Your task to perform on an android device: open app "Duolingo: language lessons" Image 0: 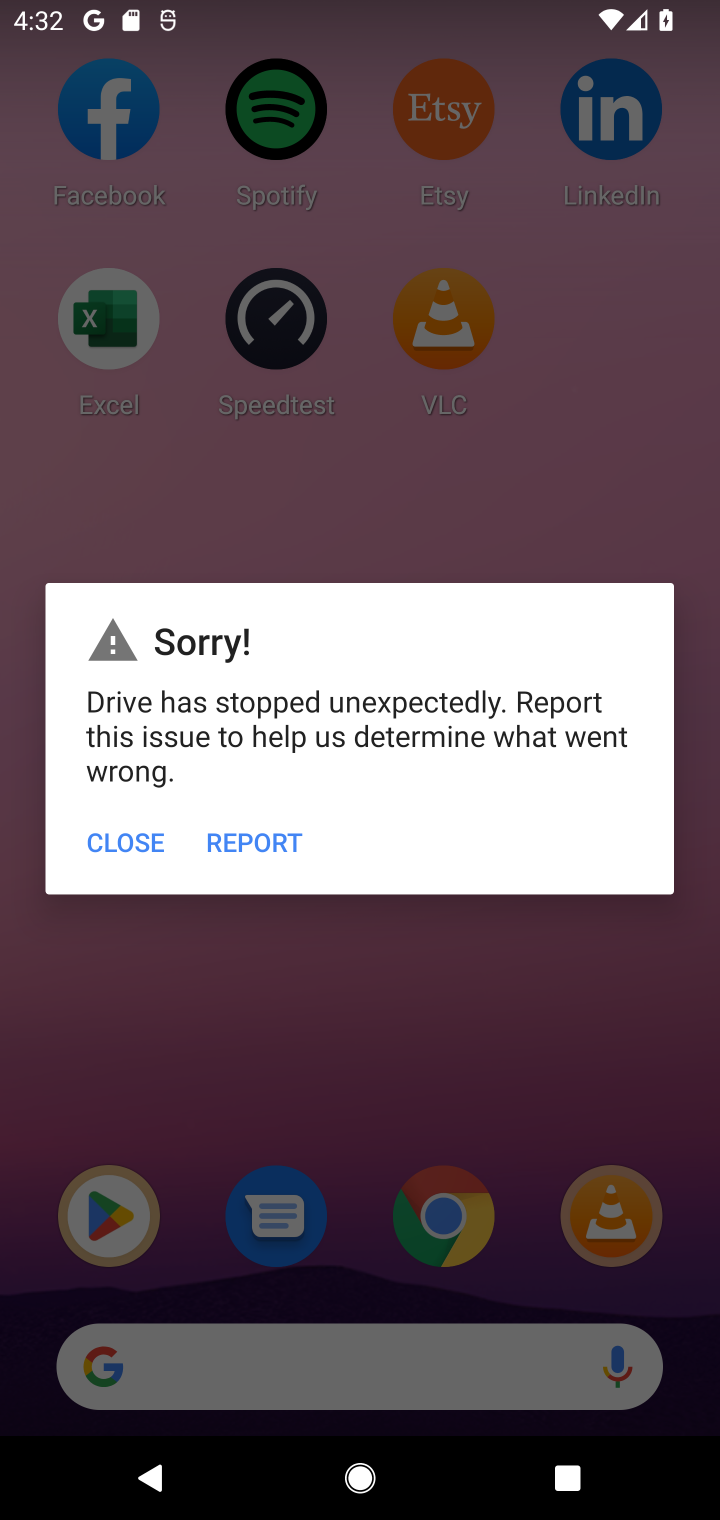
Step 0: click (125, 849)
Your task to perform on an android device: open app "Duolingo: language lessons" Image 1: 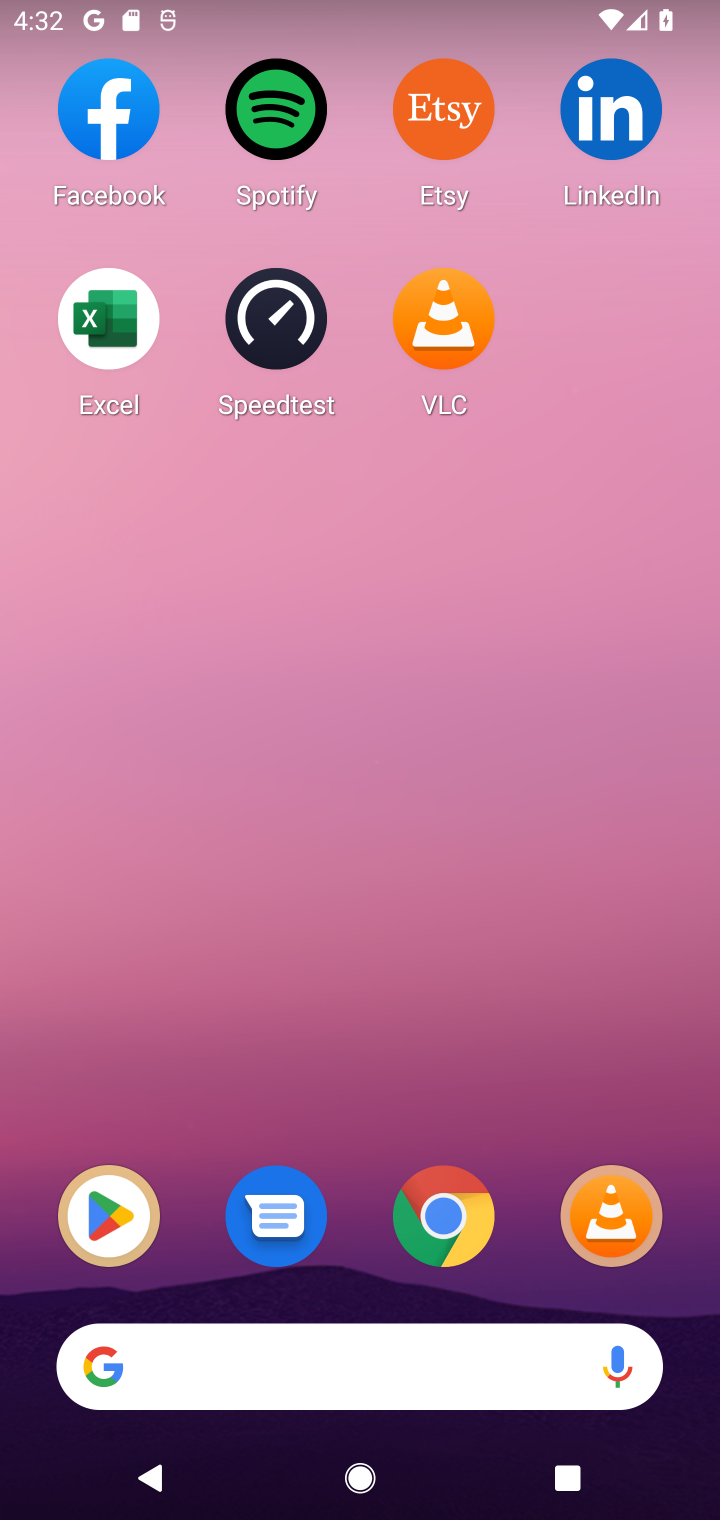
Step 1: click (136, 1203)
Your task to perform on an android device: open app "Duolingo: language lessons" Image 2: 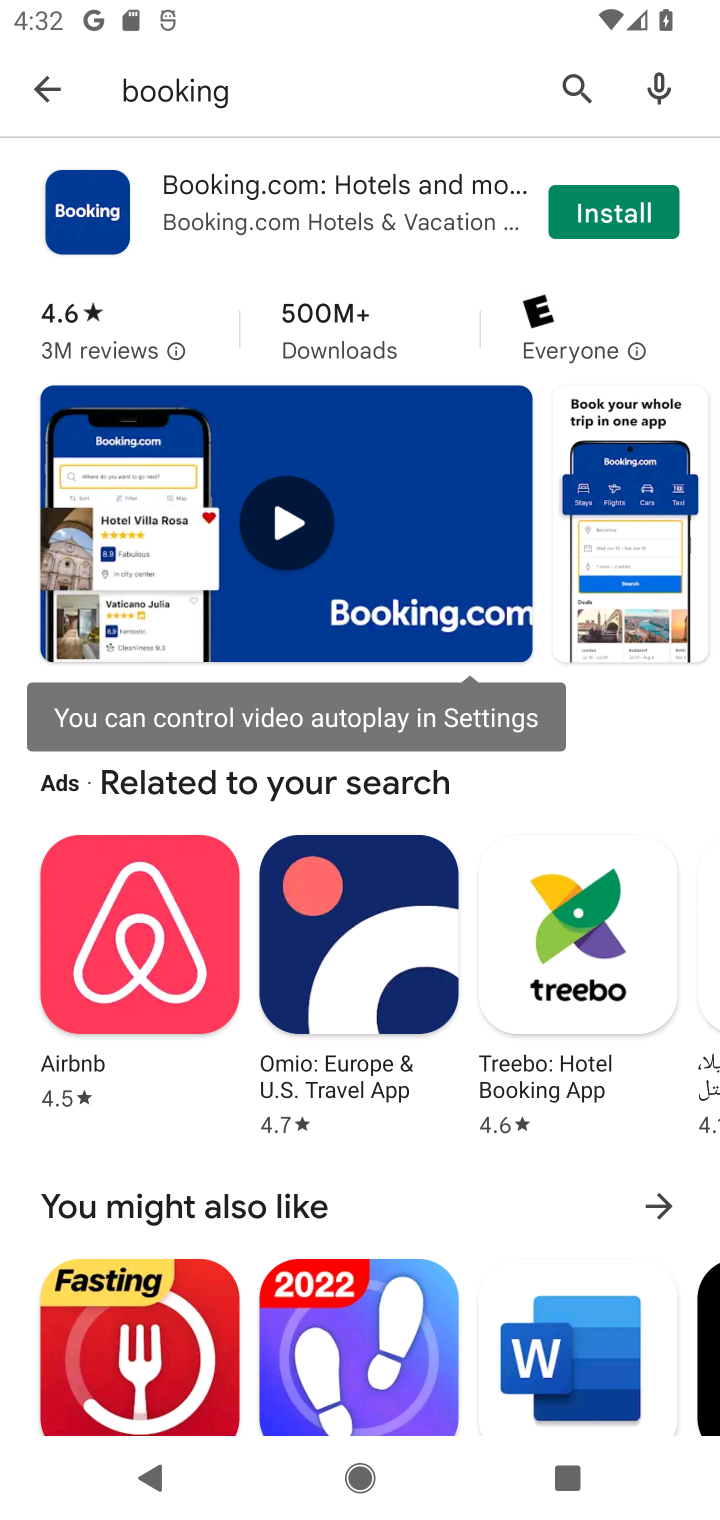
Step 2: click (568, 75)
Your task to perform on an android device: open app "Duolingo: language lessons" Image 3: 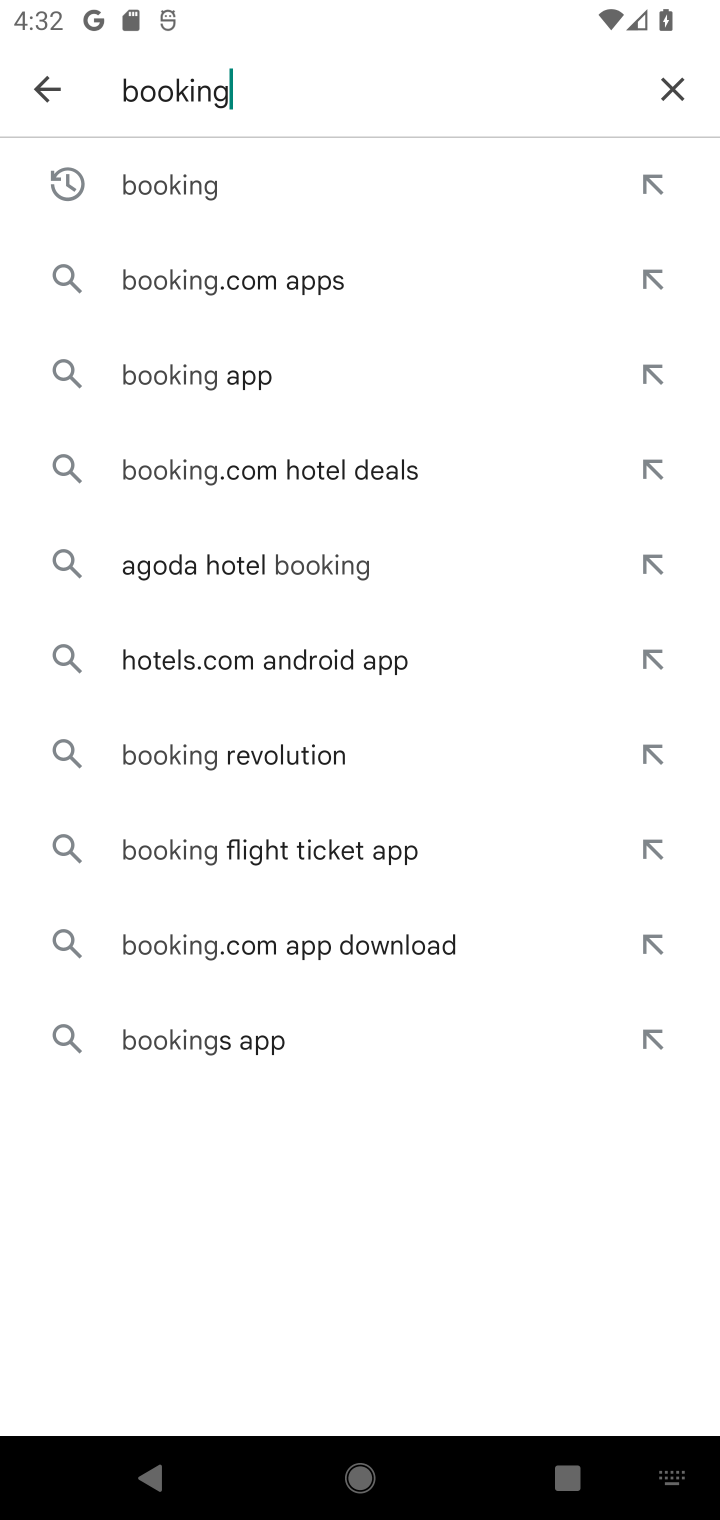
Step 3: click (652, 94)
Your task to perform on an android device: open app "Duolingo: language lessons" Image 4: 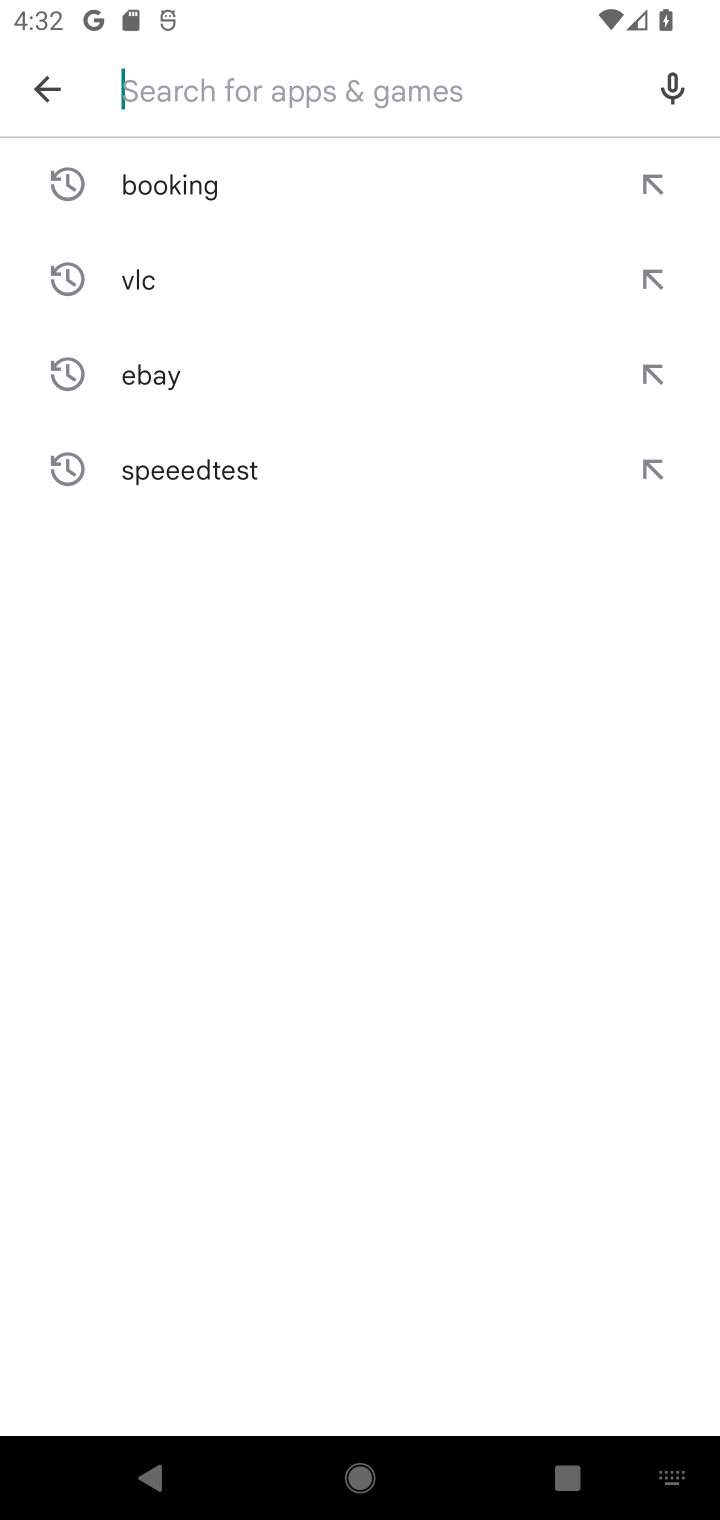
Step 4: type "duolingo"
Your task to perform on an android device: open app "Duolingo: language lessons" Image 5: 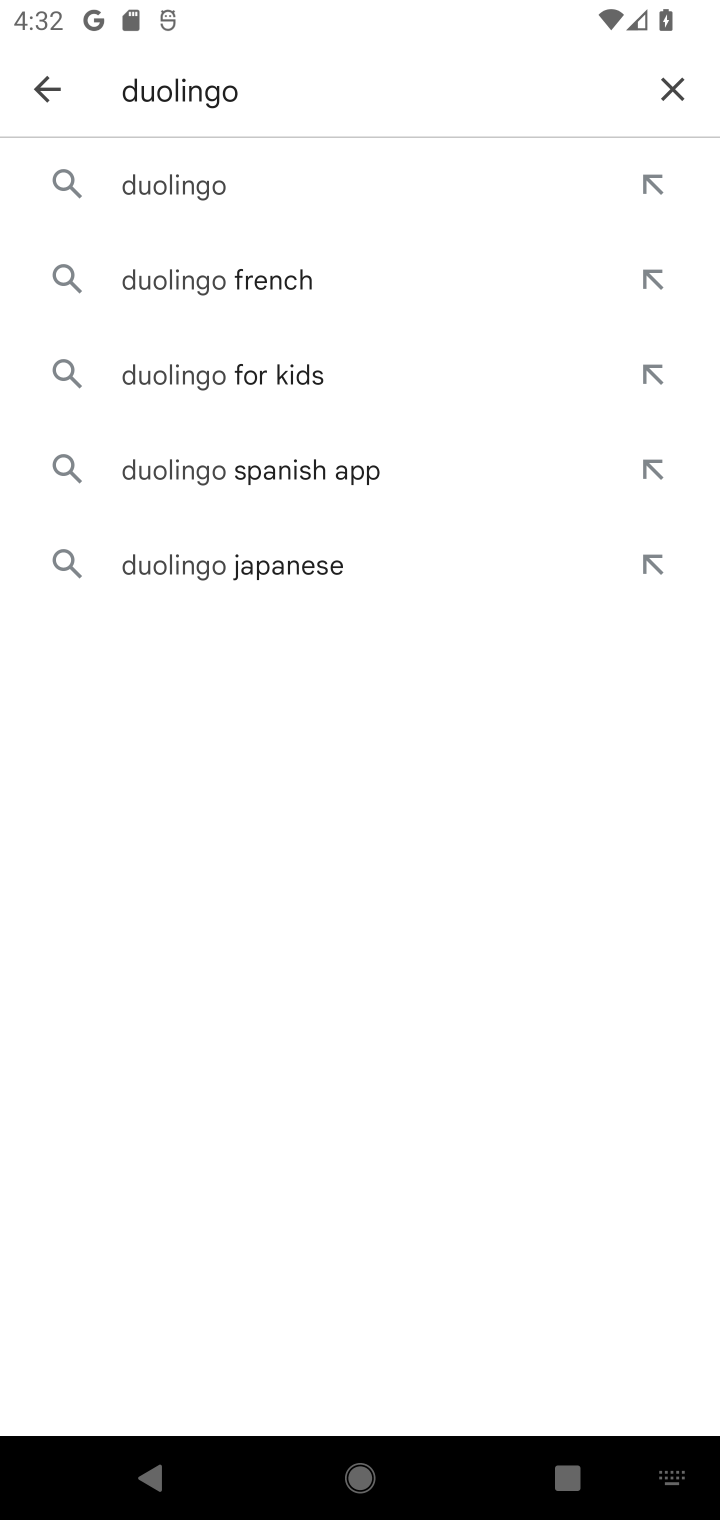
Step 5: click (305, 197)
Your task to perform on an android device: open app "Duolingo: language lessons" Image 6: 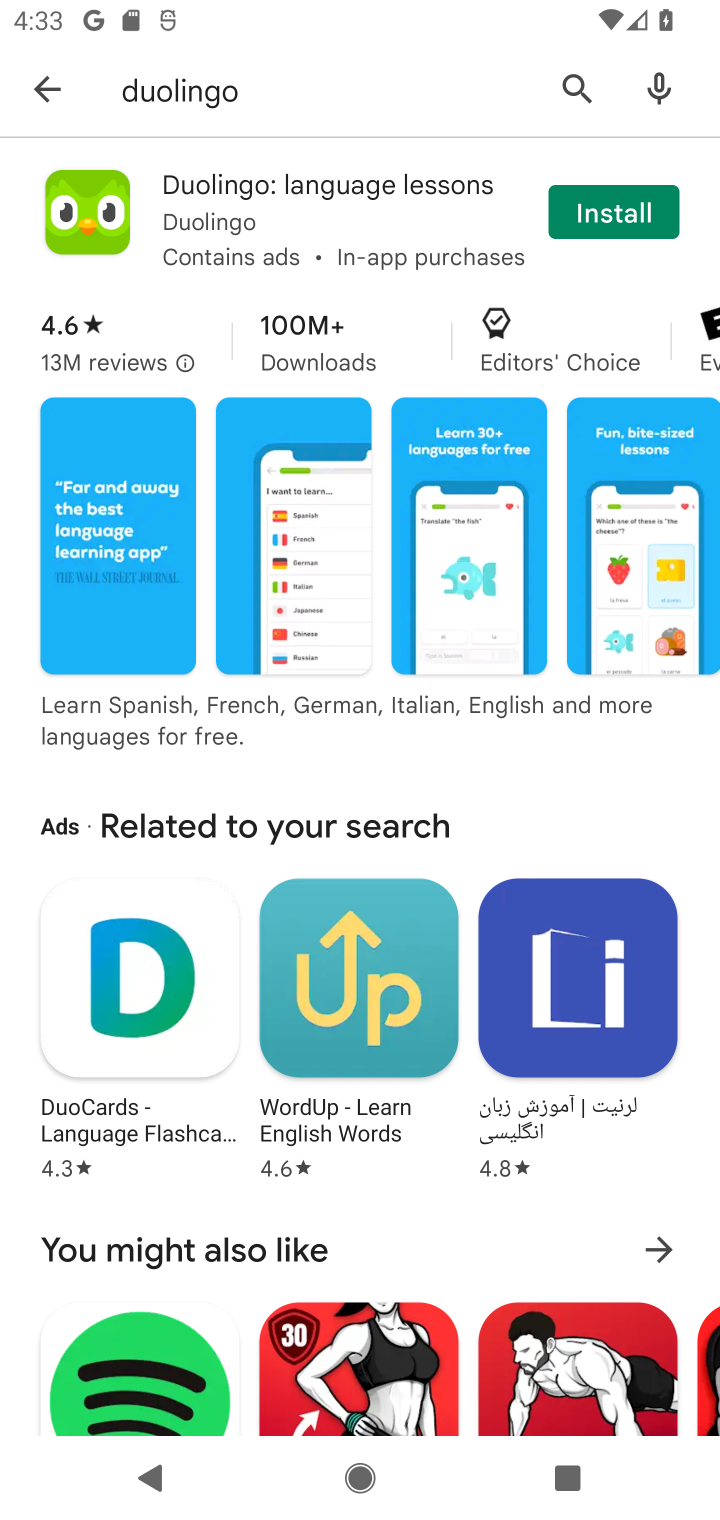
Step 6: click (616, 204)
Your task to perform on an android device: open app "Duolingo: language lessons" Image 7: 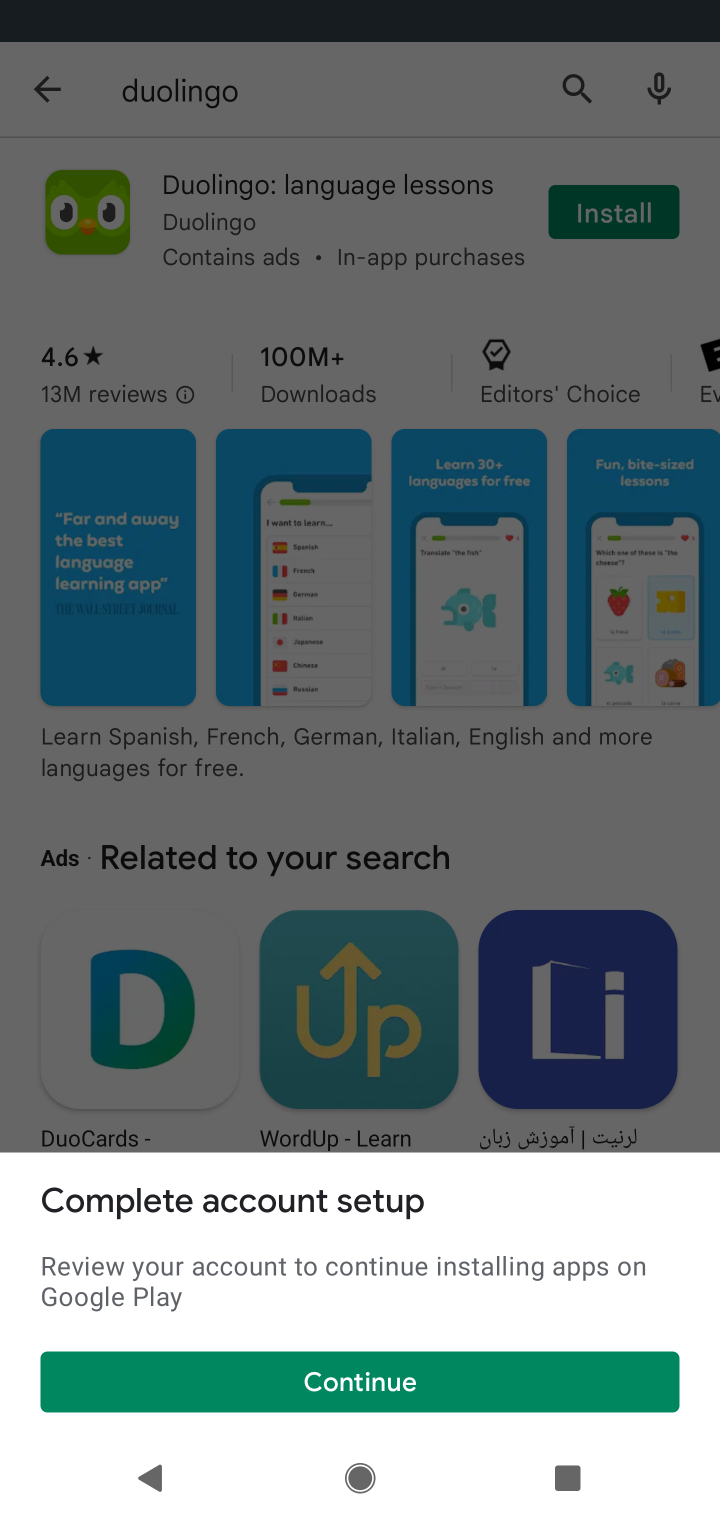
Step 7: click (423, 1398)
Your task to perform on an android device: open app "Duolingo: language lessons" Image 8: 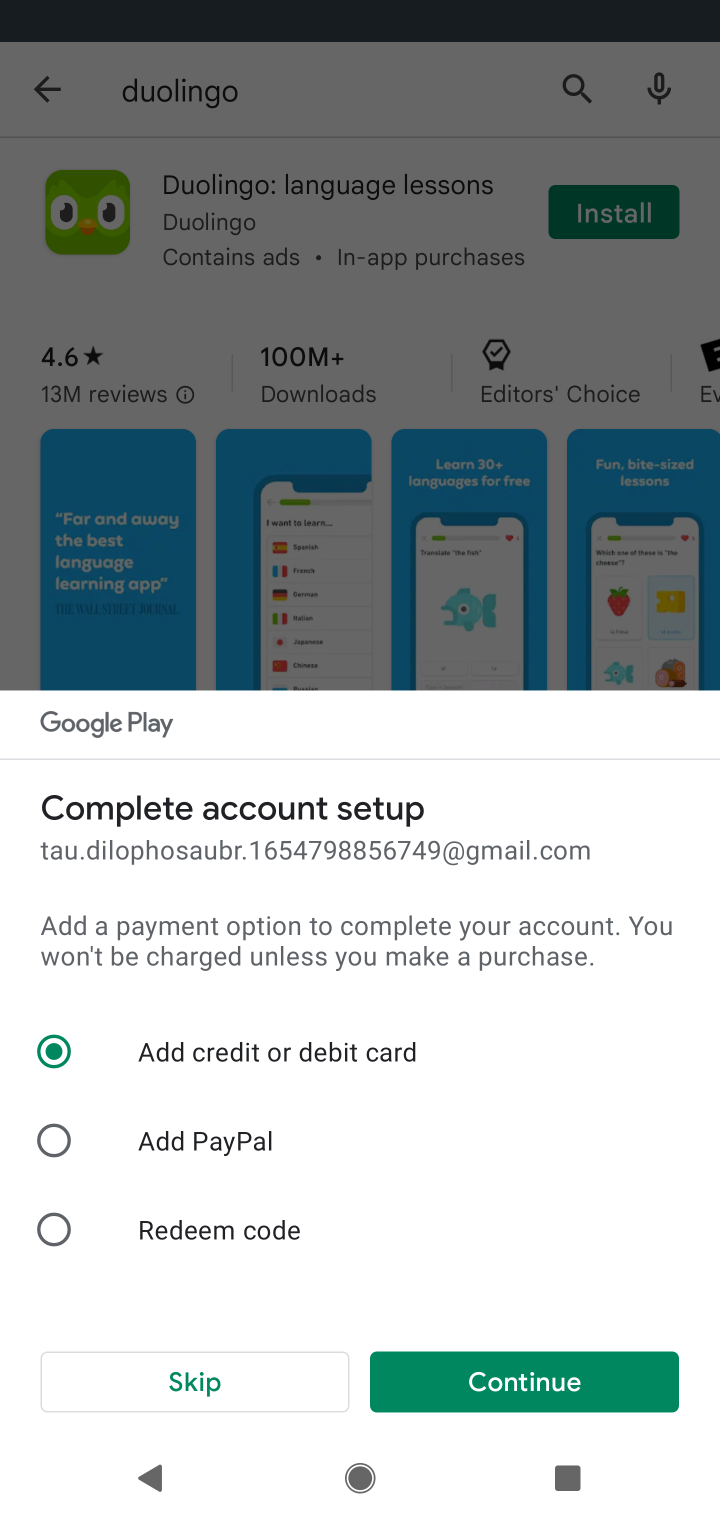
Step 8: click (221, 1370)
Your task to perform on an android device: open app "Duolingo: language lessons" Image 9: 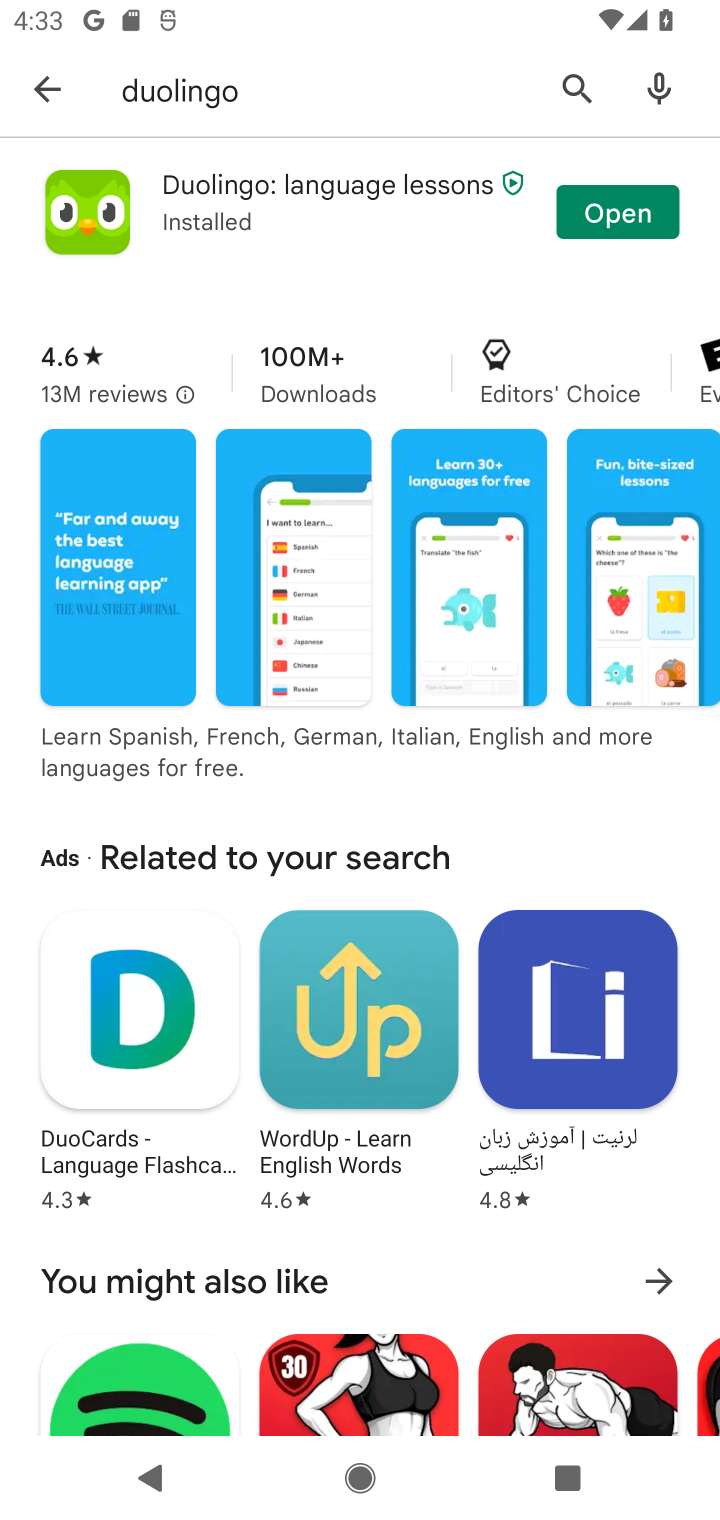
Step 9: task complete